Your task to perform on an android device: change the clock display to show seconds Image 0: 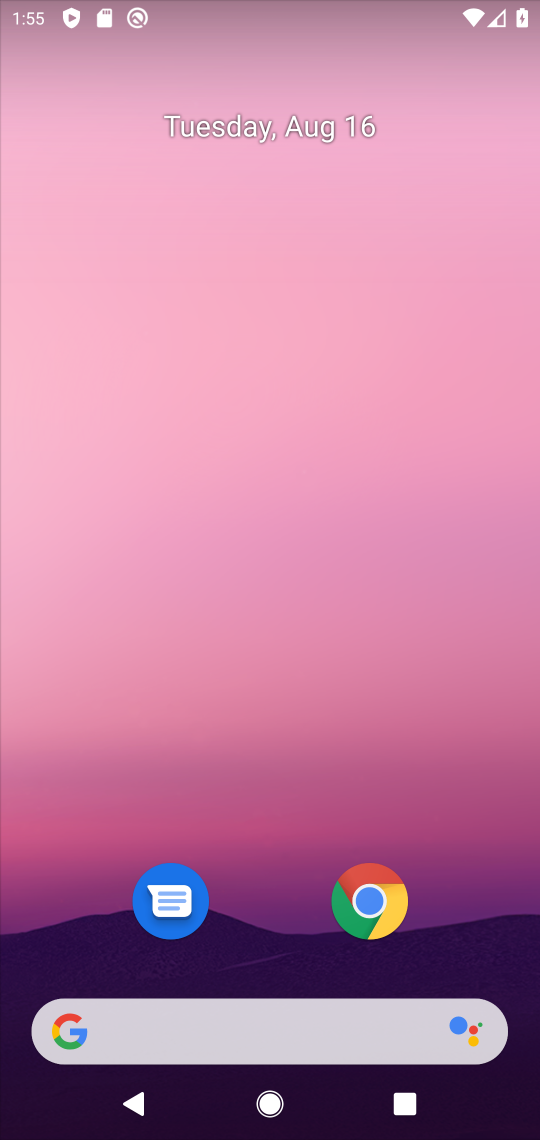
Step 0: press home button
Your task to perform on an android device: change the clock display to show seconds Image 1: 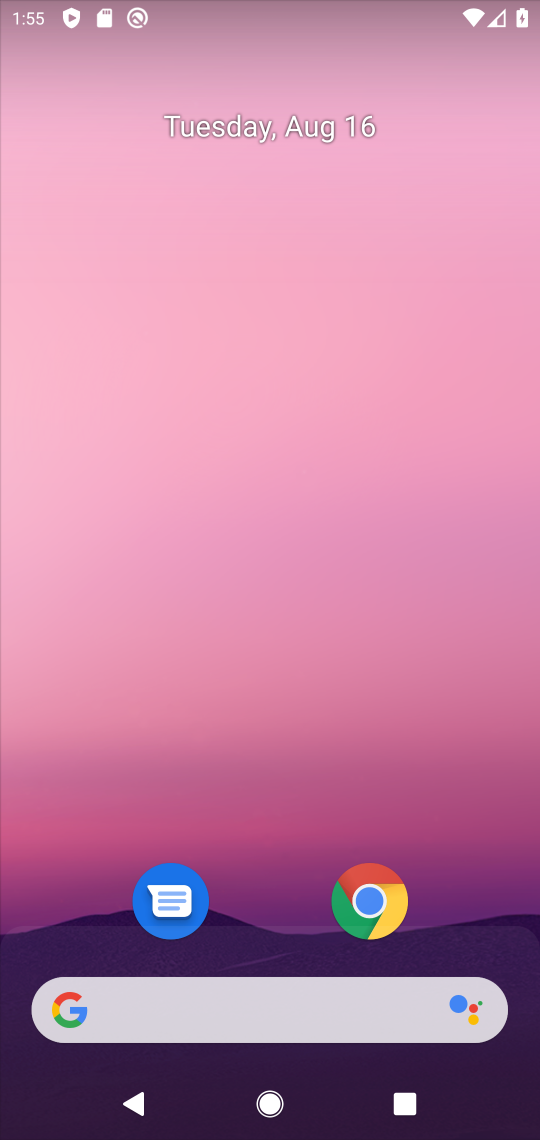
Step 1: drag from (253, 878) to (291, 126)
Your task to perform on an android device: change the clock display to show seconds Image 2: 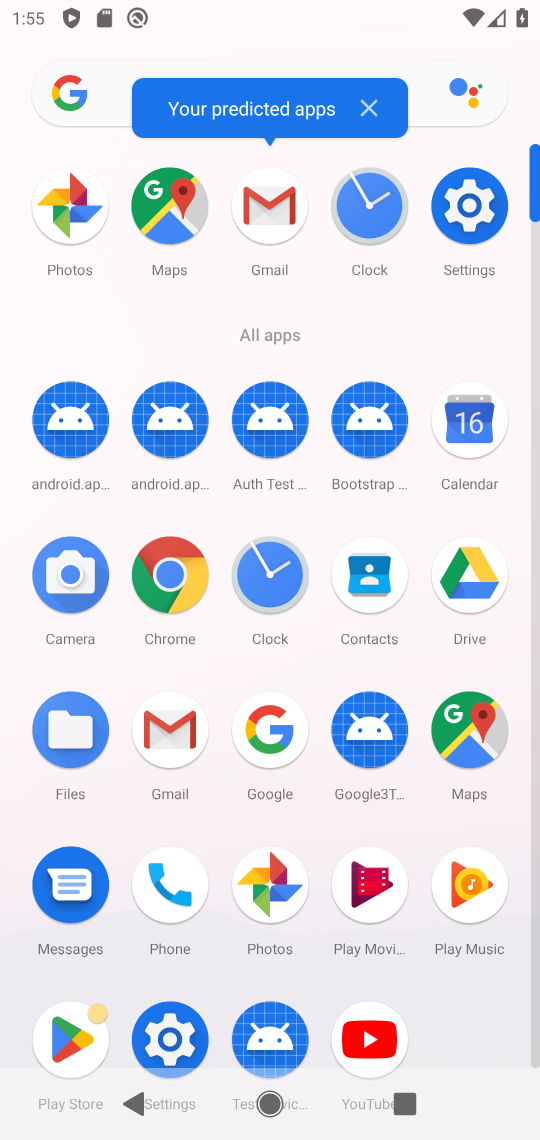
Step 2: click (374, 202)
Your task to perform on an android device: change the clock display to show seconds Image 3: 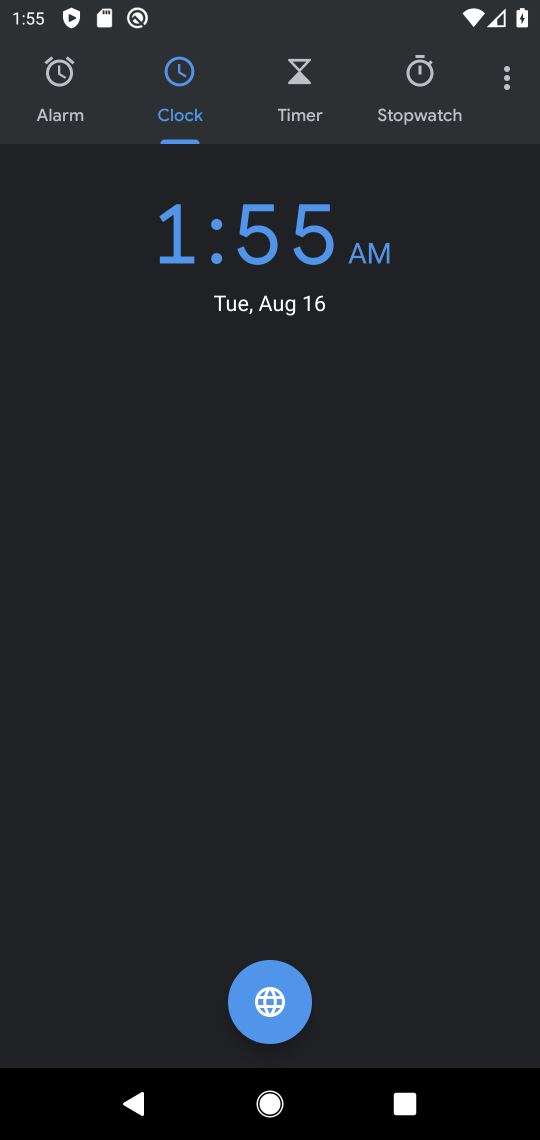
Step 3: click (508, 77)
Your task to perform on an android device: change the clock display to show seconds Image 4: 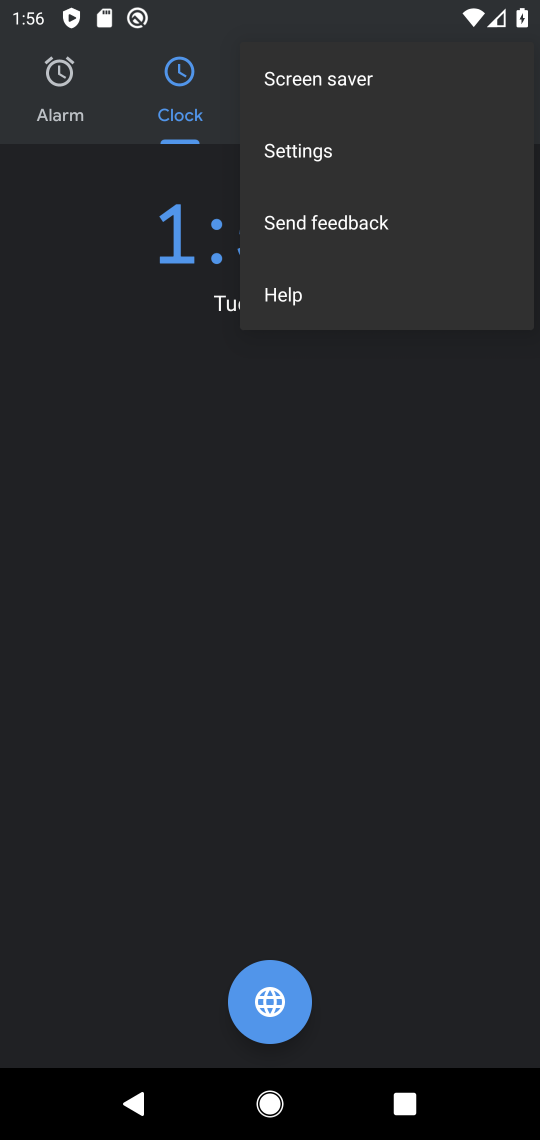
Step 4: click (290, 153)
Your task to perform on an android device: change the clock display to show seconds Image 5: 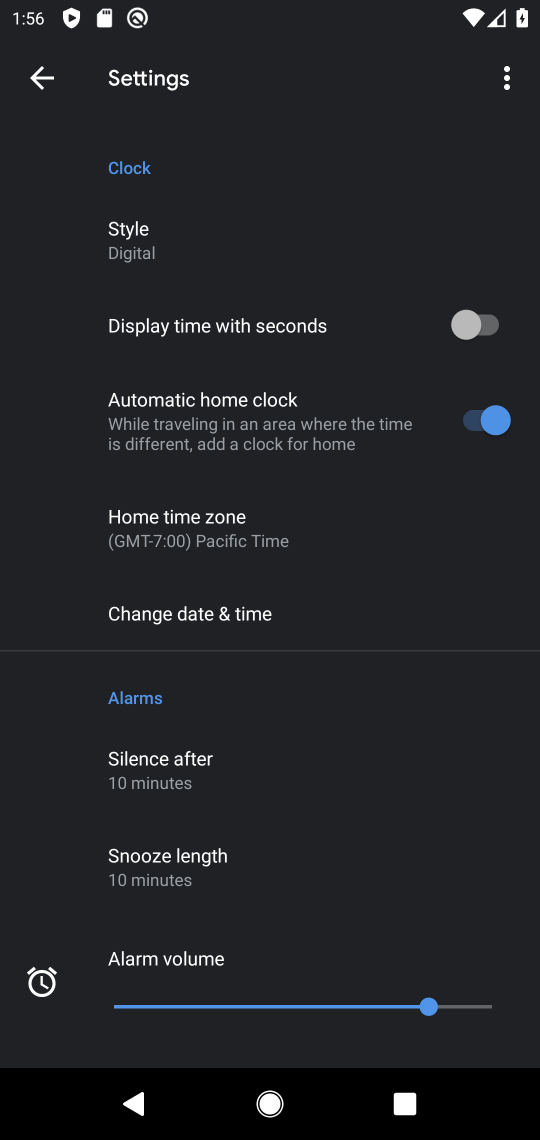
Step 5: click (487, 325)
Your task to perform on an android device: change the clock display to show seconds Image 6: 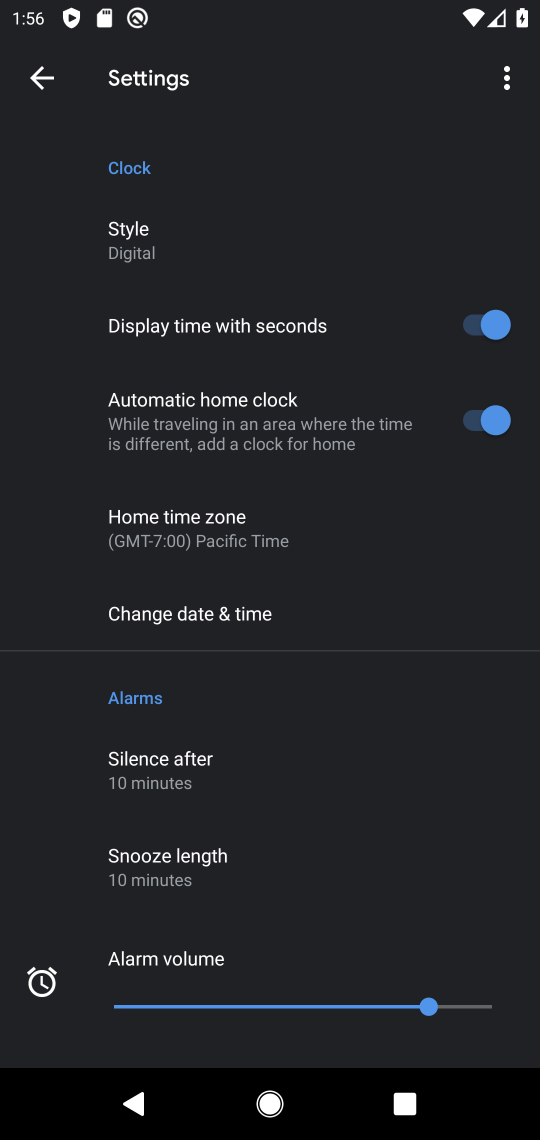
Step 6: task complete